Your task to perform on an android device: Open Google Chrome and open the bookmarks view Image 0: 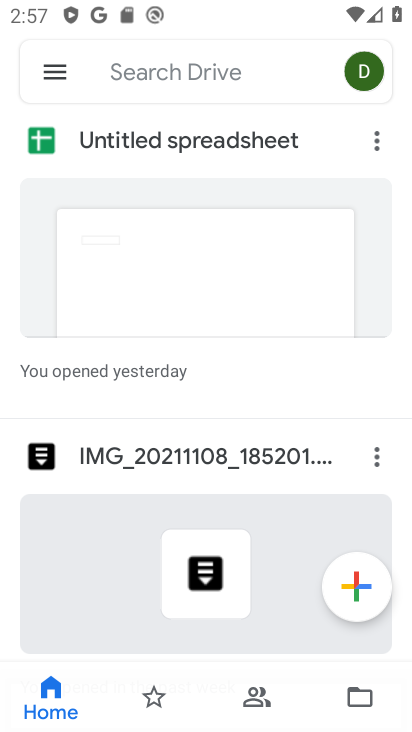
Step 0: press home button
Your task to perform on an android device: Open Google Chrome and open the bookmarks view Image 1: 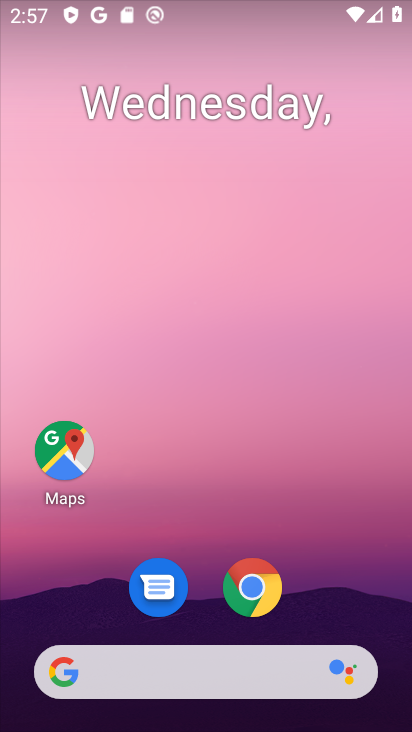
Step 1: drag from (186, 651) to (263, 196)
Your task to perform on an android device: Open Google Chrome and open the bookmarks view Image 2: 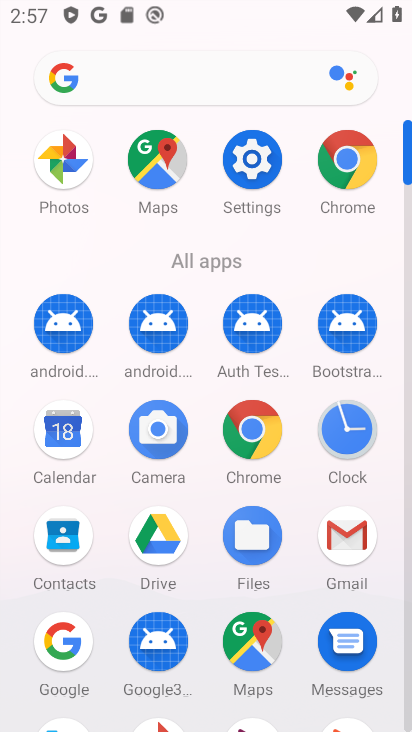
Step 2: click (341, 190)
Your task to perform on an android device: Open Google Chrome and open the bookmarks view Image 3: 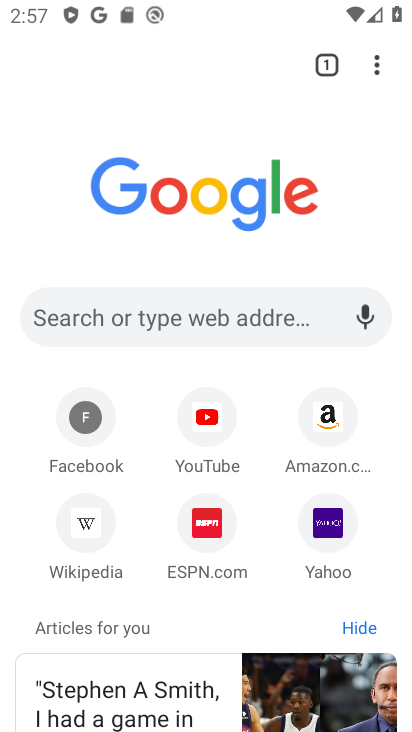
Step 3: click (379, 82)
Your task to perform on an android device: Open Google Chrome and open the bookmarks view Image 4: 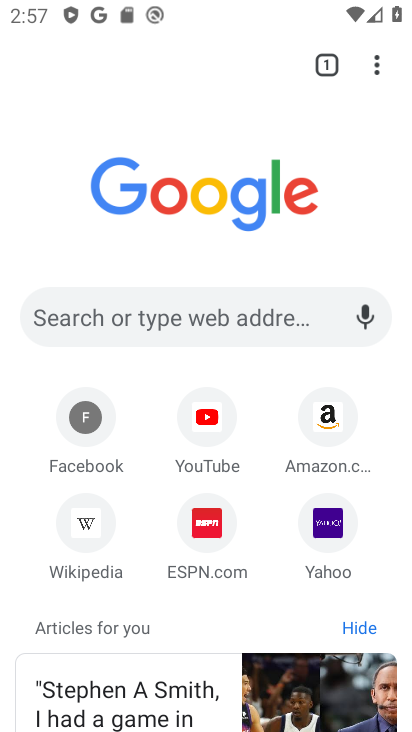
Step 4: click (379, 82)
Your task to perform on an android device: Open Google Chrome and open the bookmarks view Image 5: 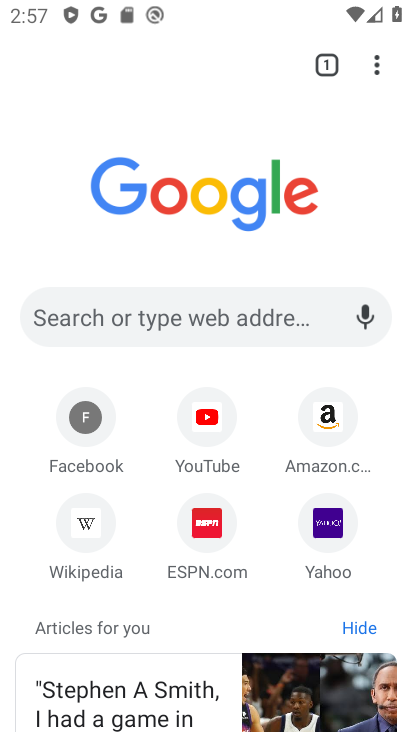
Step 5: click (382, 71)
Your task to perform on an android device: Open Google Chrome and open the bookmarks view Image 6: 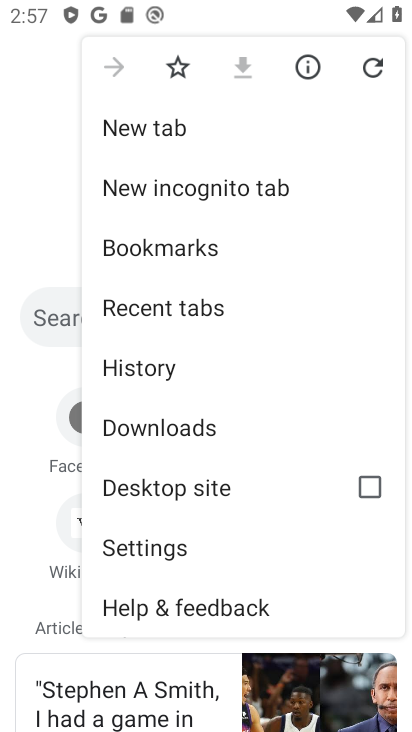
Step 6: click (210, 243)
Your task to perform on an android device: Open Google Chrome and open the bookmarks view Image 7: 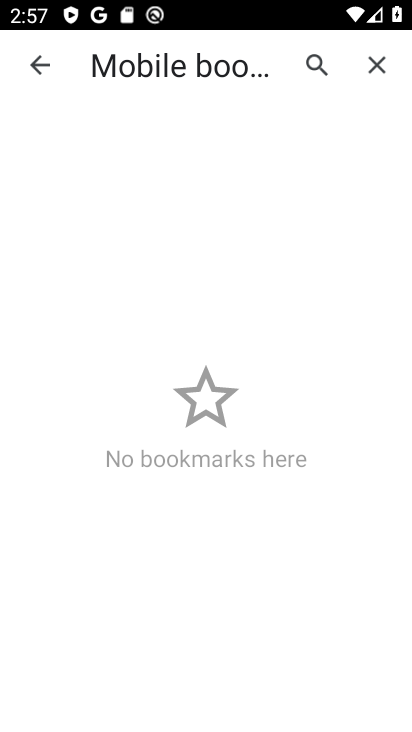
Step 7: task complete